Your task to perform on an android device: View the shopping cart on ebay. Add usb-b to the cart on ebay Image 0: 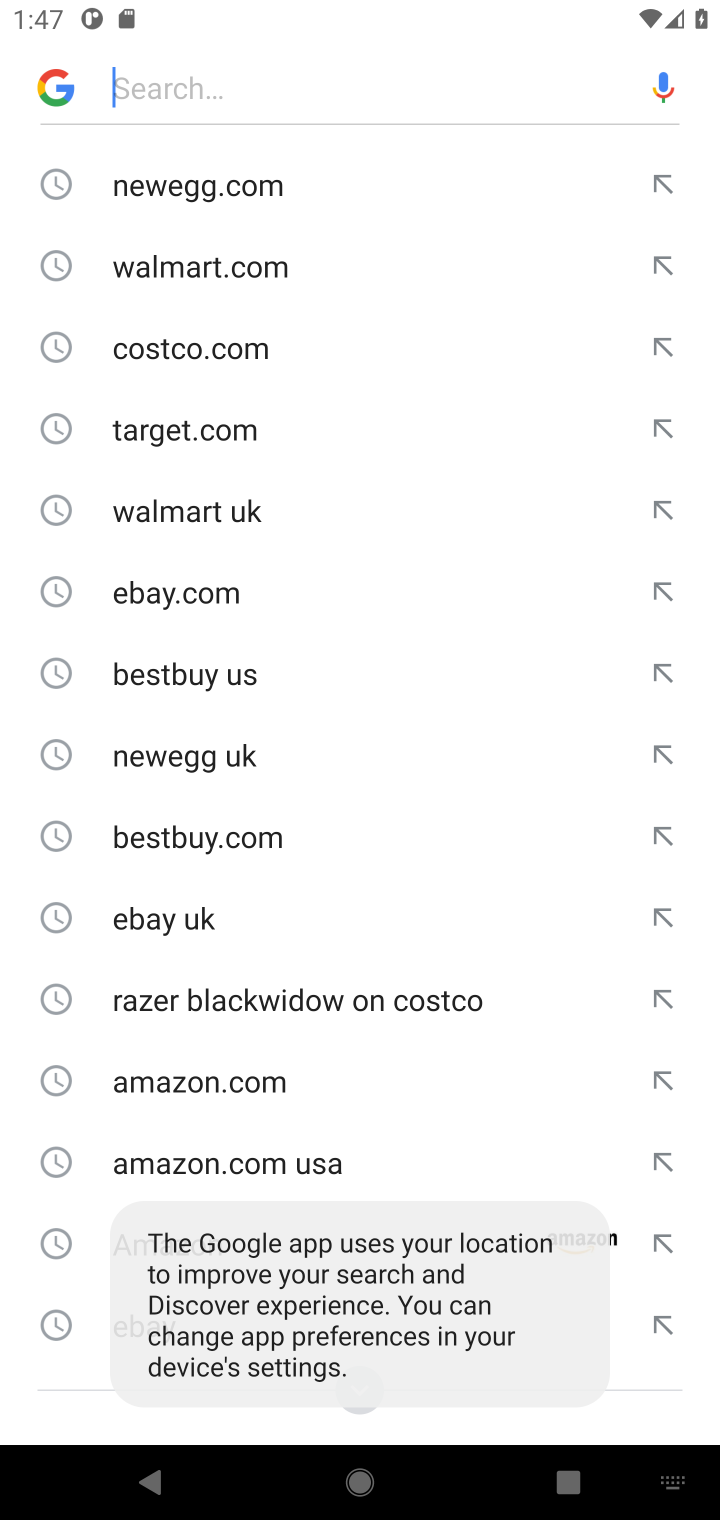
Step 0: press home button
Your task to perform on an android device: View the shopping cart on ebay. Add usb-b to the cart on ebay Image 1: 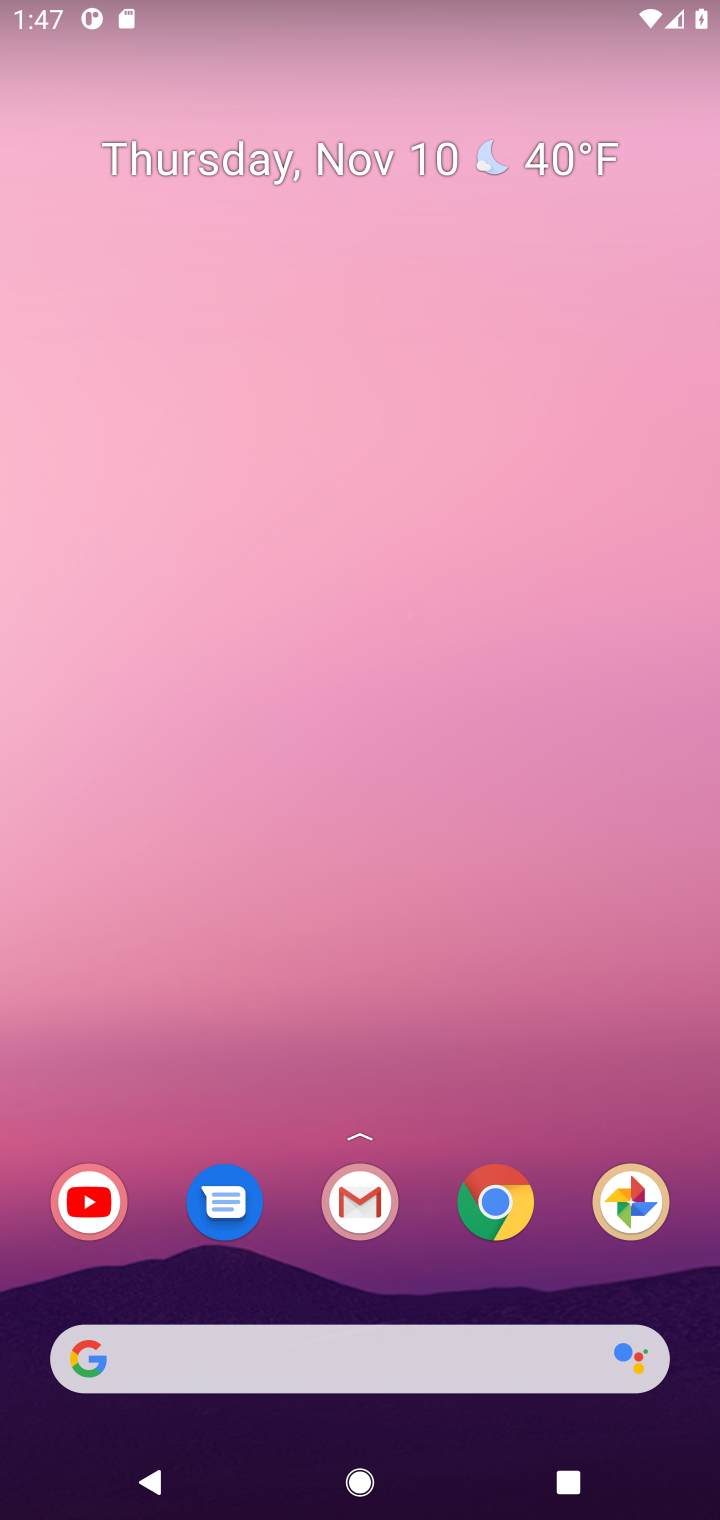
Step 1: click (492, 1211)
Your task to perform on an android device: View the shopping cart on ebay. Add usb-b to the cart on ebay Image 2: 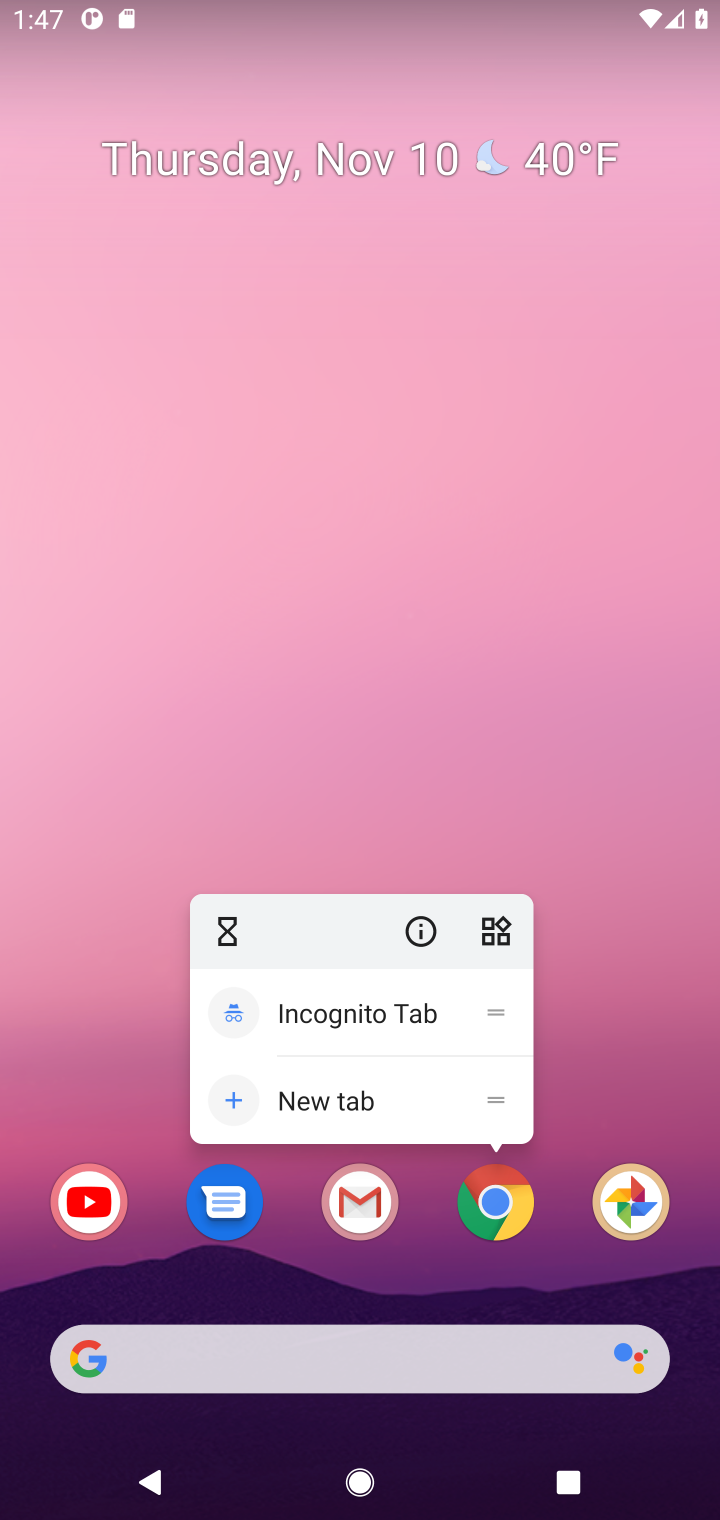
Step 2: click (496, 1204)
Your task to perform on an android device: View the shopping cart on ebay. Add usb-b to the cart on ebay Image 3: 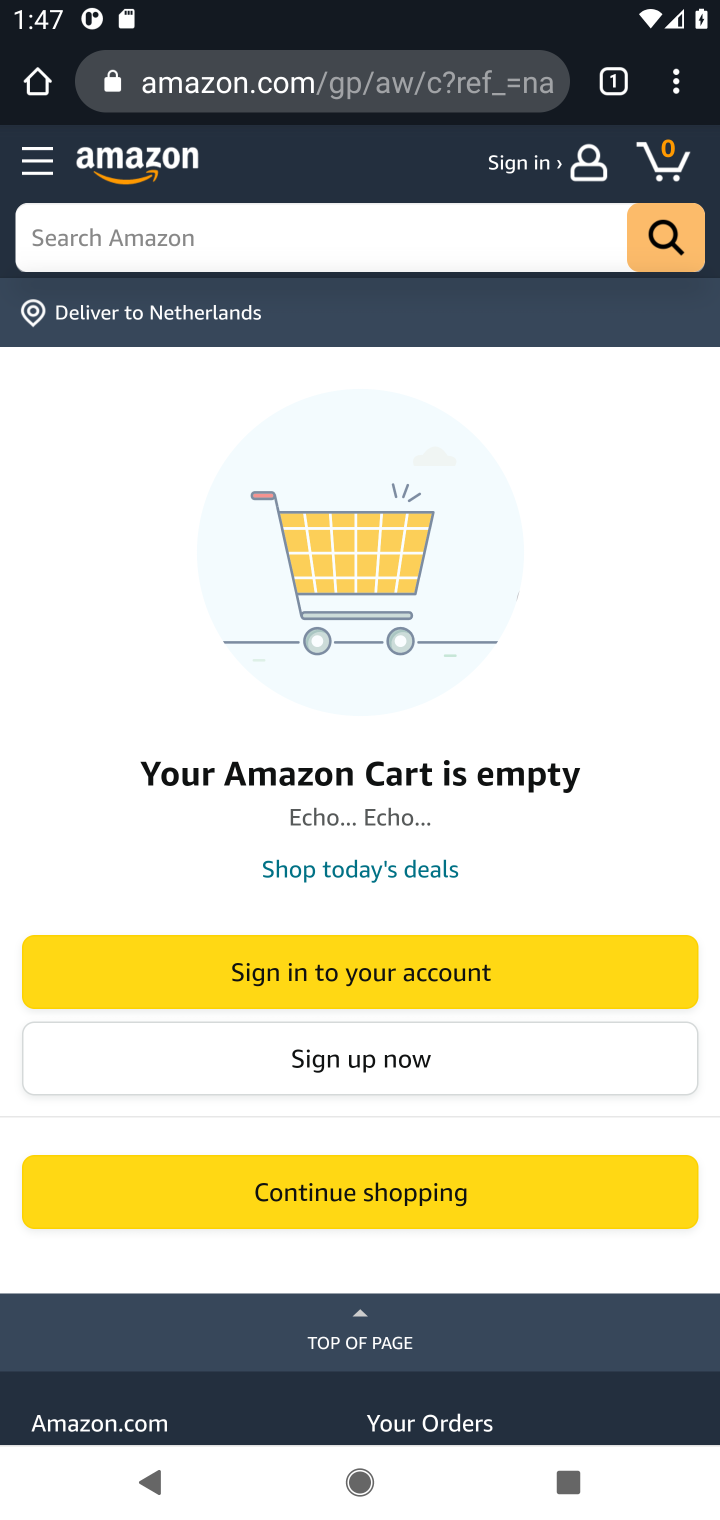
Step 3: click (334, 94)
Your task to perform on an android device: View the shopping cart on ebay. Add usb-b to the cart on ebay Image 4: 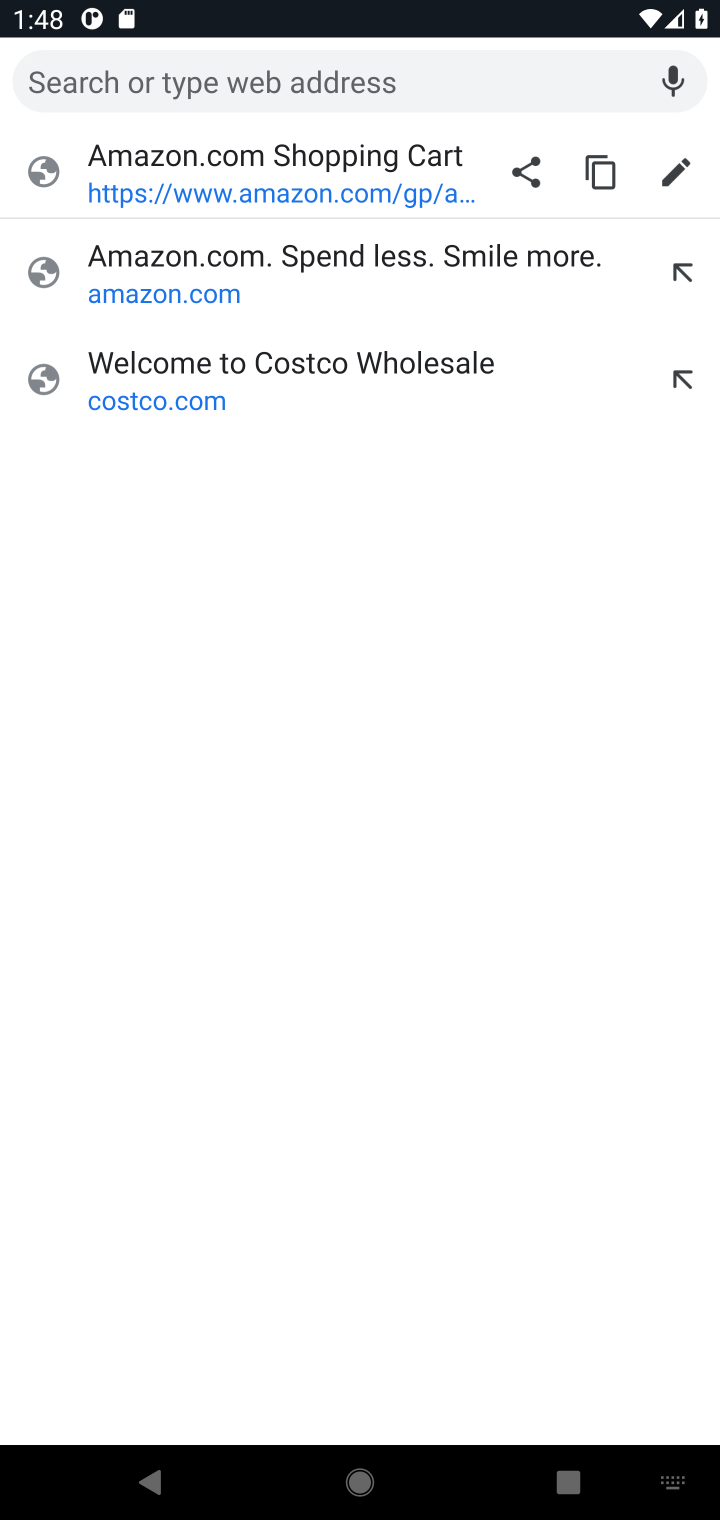
Step 4: type " ebay"
Your task to perform on an android device: View the shopping cart on ebay. Add usb-b to the cart on ebay Image 5: 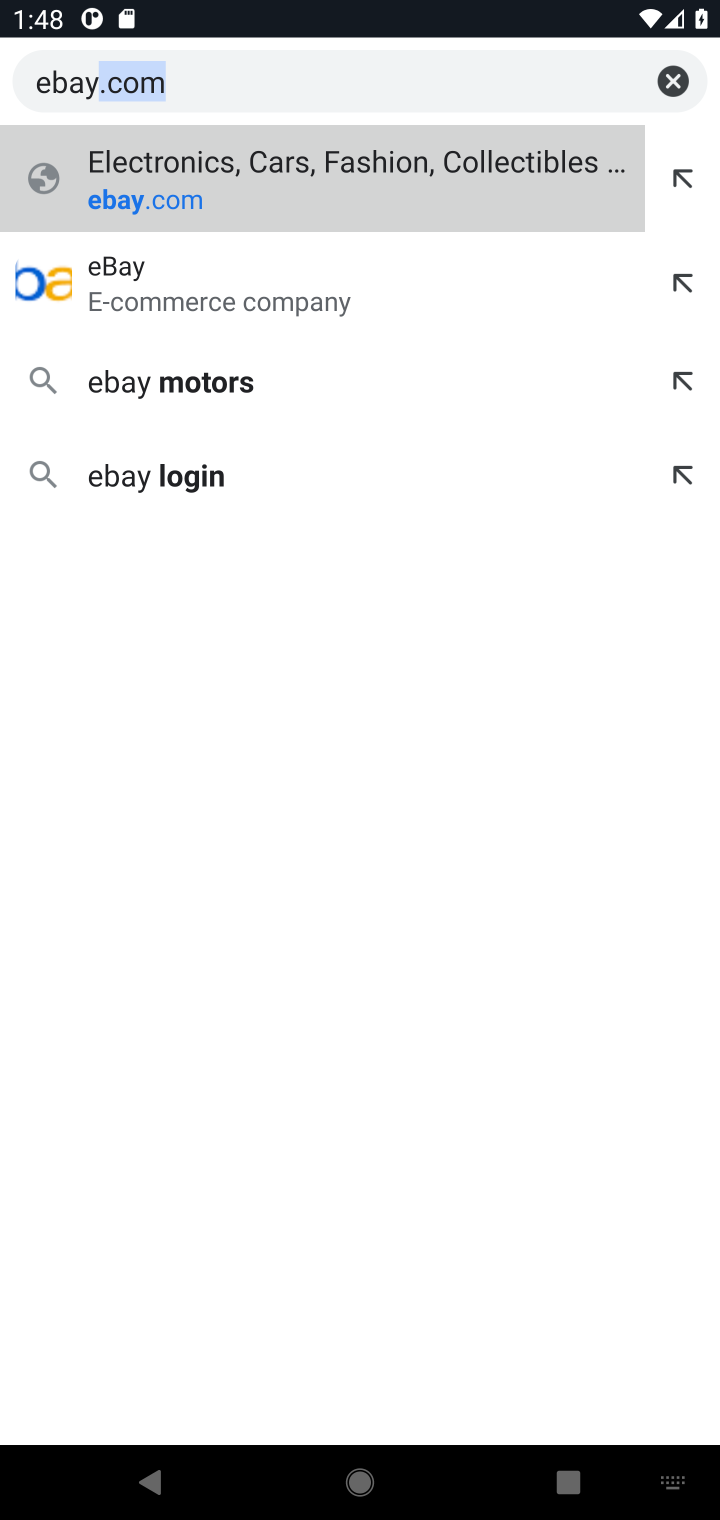
Step 5: press enter
Your task to perform on an android device: View the shopping cart on ebay. Add usb-b to the cart on ebay Image 6: 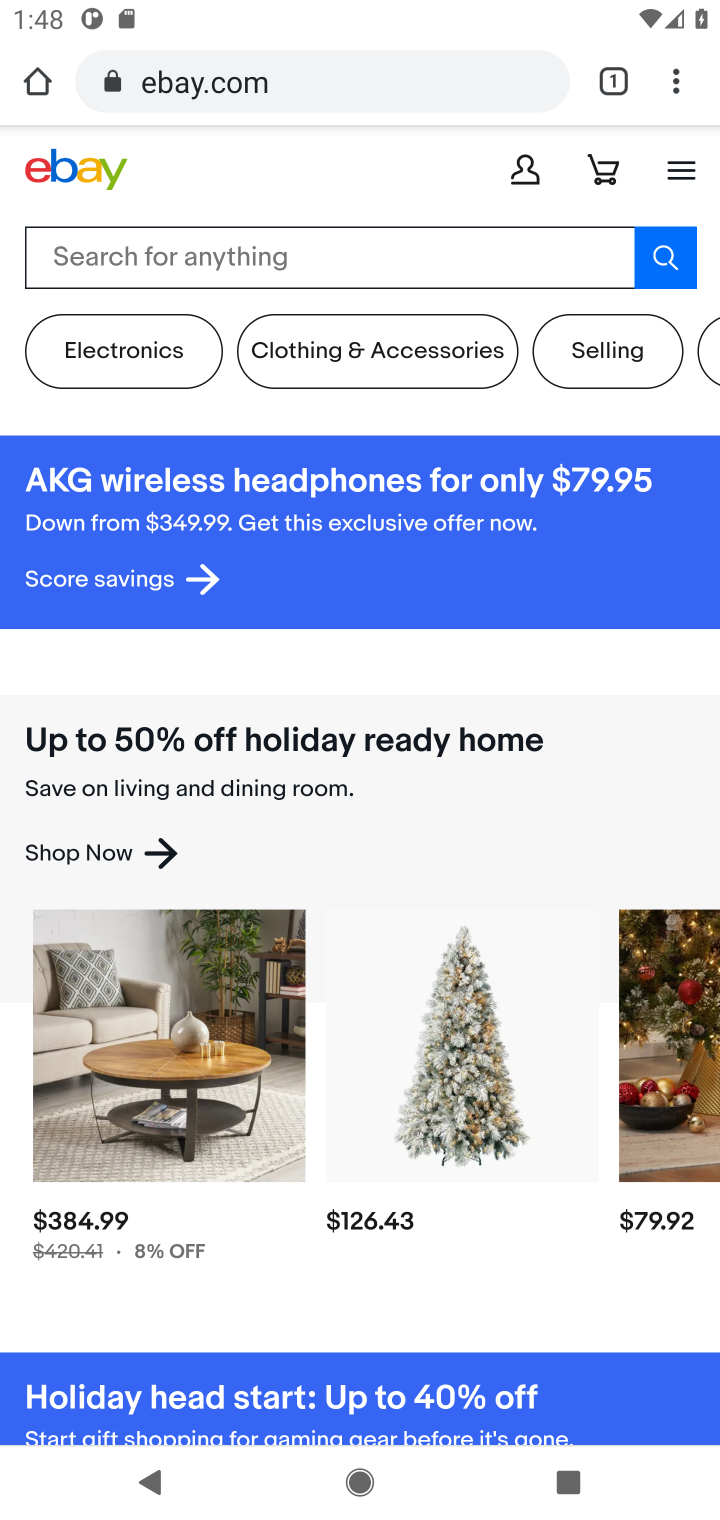
Step 6: click (254, 243)
Your task to perform on an android device: View the shopping cart on ebay. Add usb-b to the cart on ebay Image 7: 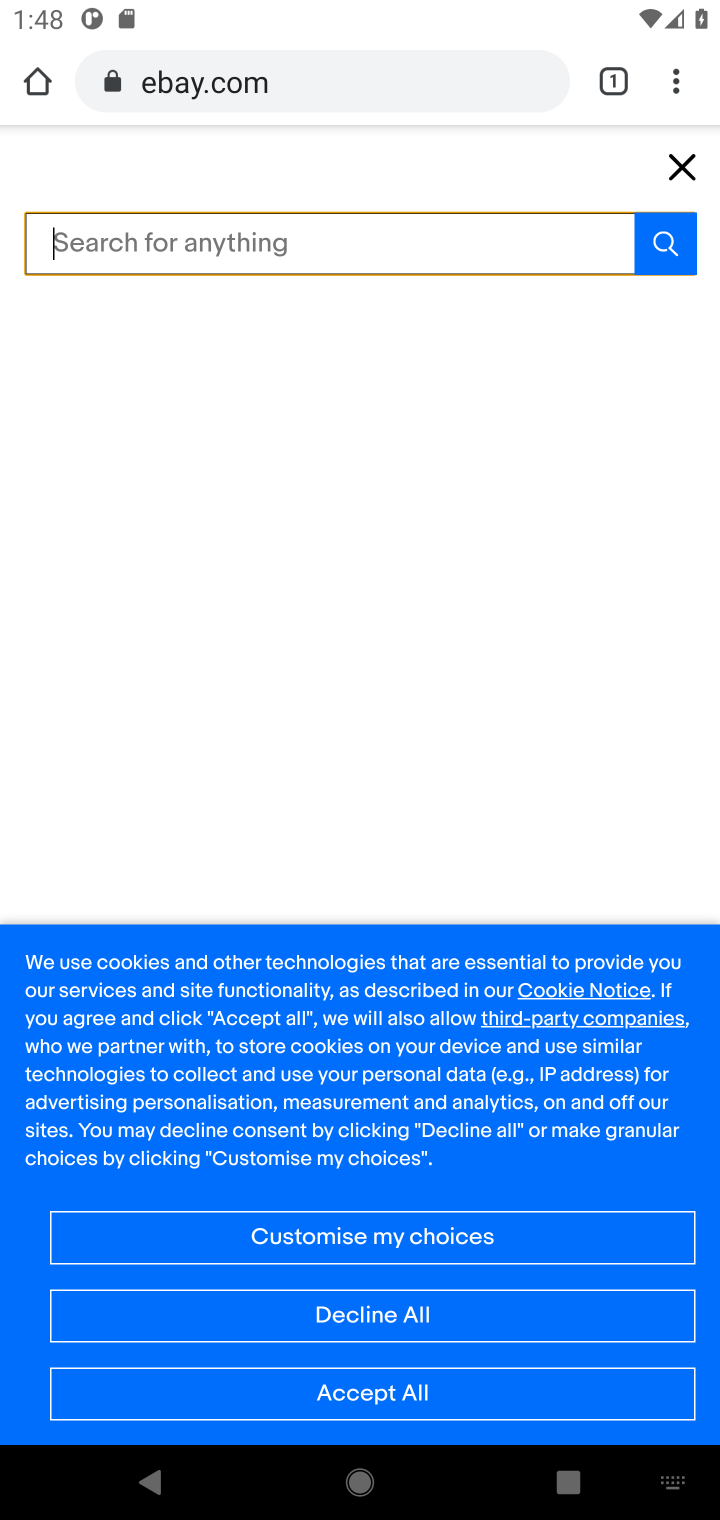
Step 7: type "usb-b "
Your task to perform on an android device: View the shopping cart on ebay. Add usb-b to the cart on ebay Image 8: 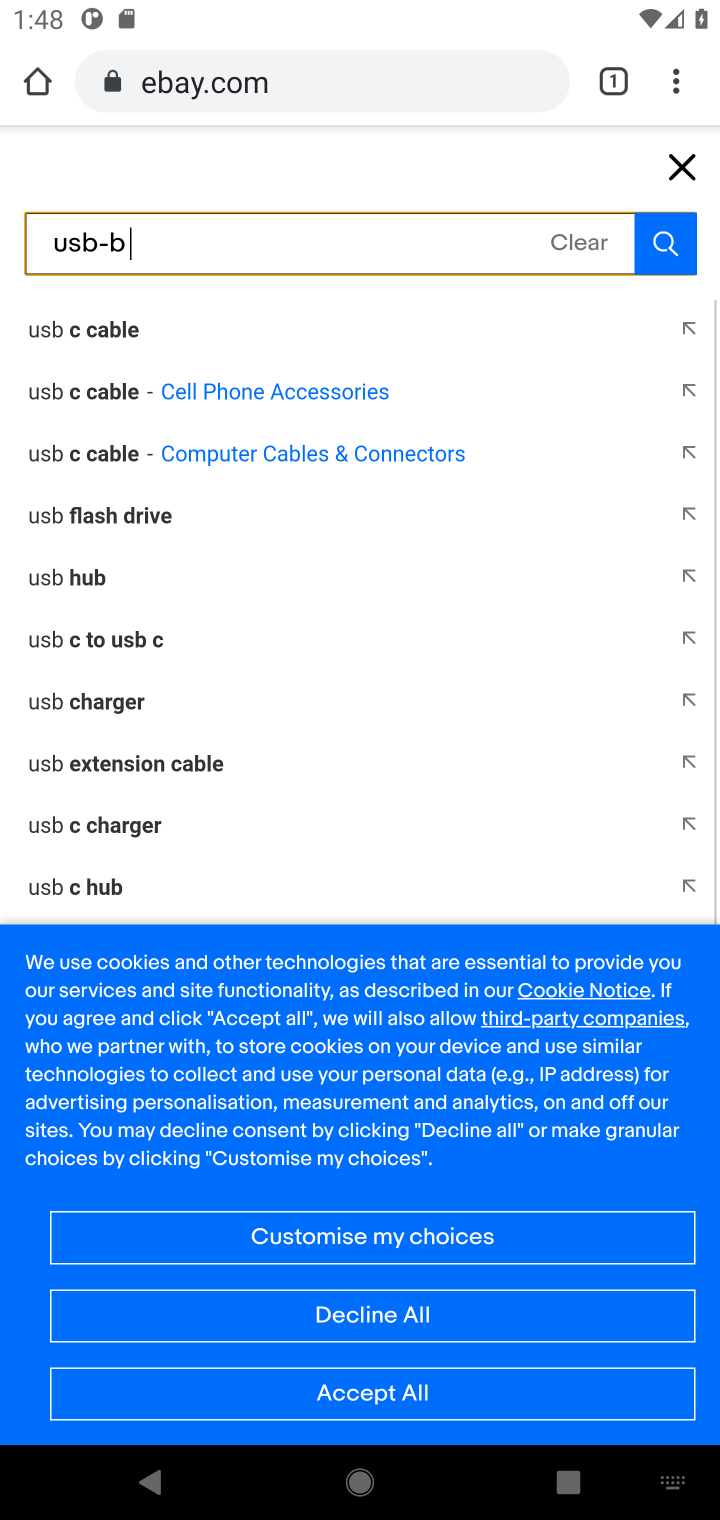
Step 8: press enter
Your task to perform on an android device: View the shopping cart on ebay. Add usb-b to the cart on ebay Image 9: 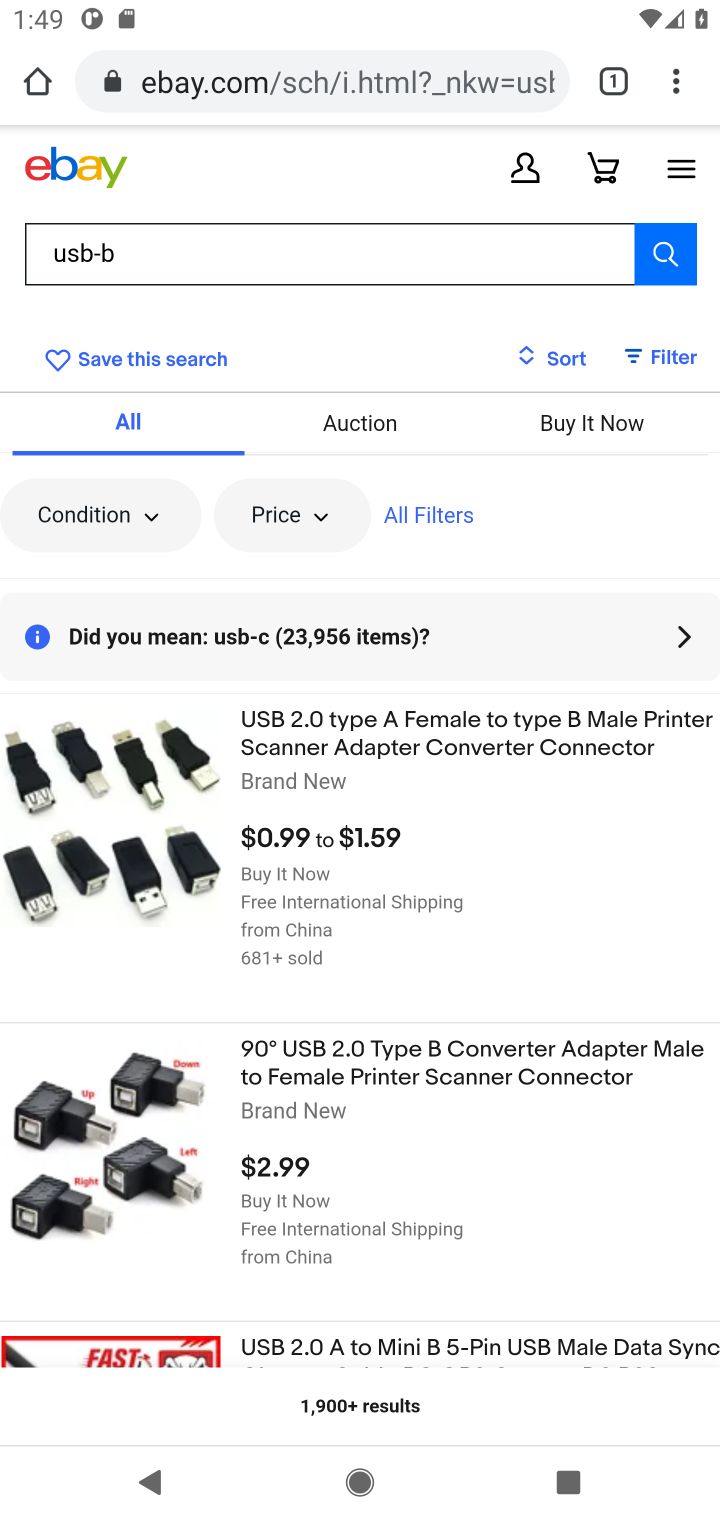
Step 9: click (453, 1071)
Your task to perform on an android device: View the shopping cart on ebay. Add usb-b to the cart on ebay Image 10: 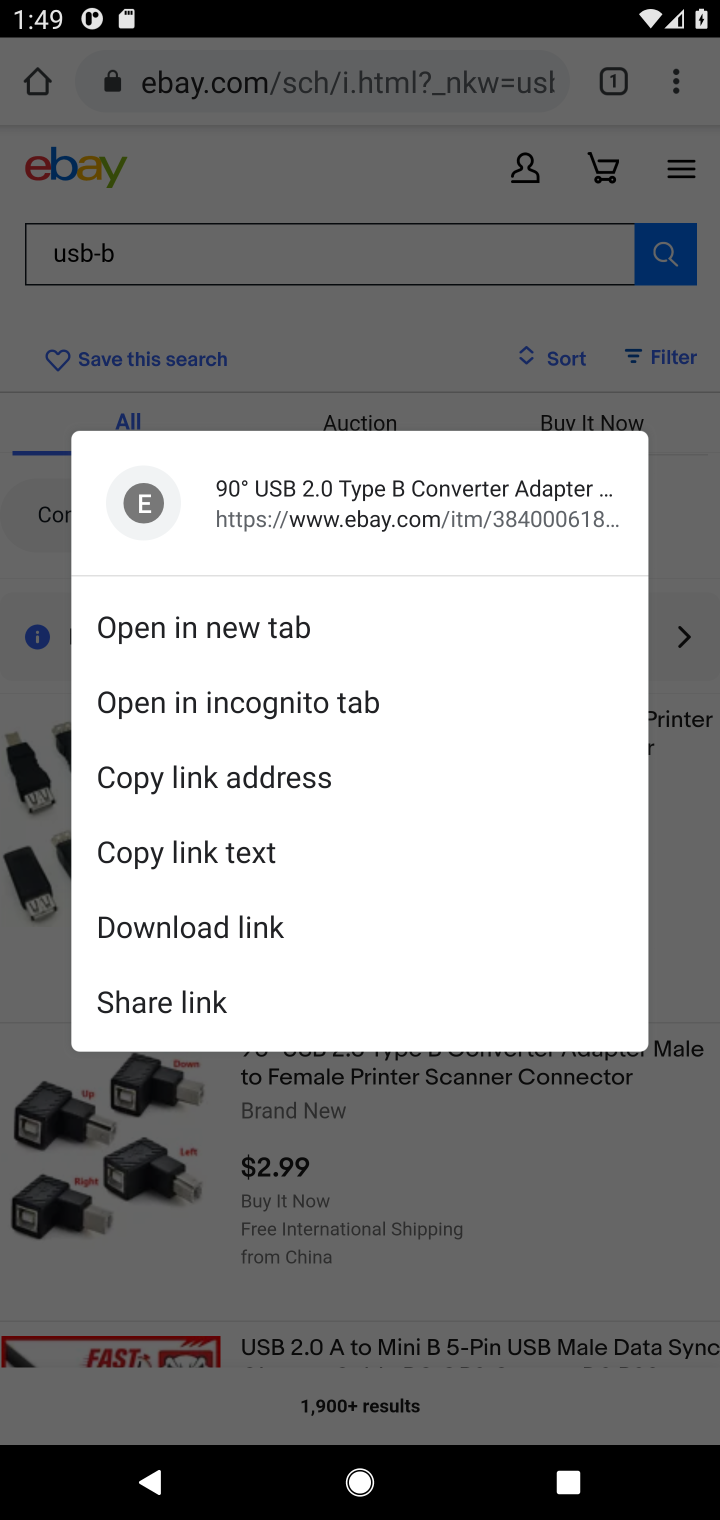
Step 10: click (453, 1071)
Your task to perform on an android device: View the shopping cart on ebay. Add usb-b to the cart on ebay Image 11: 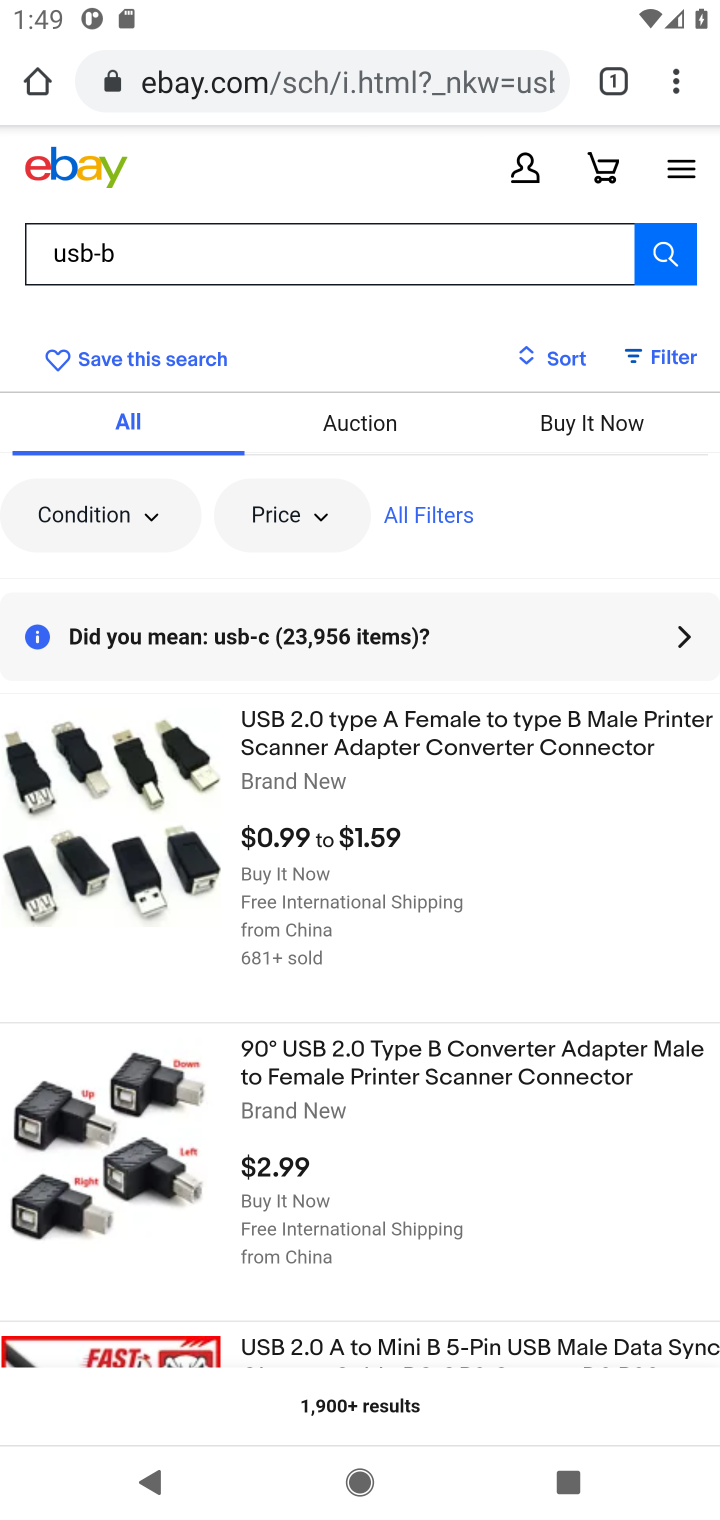
Step 11: click (388, 1050)
Your task to perform on an android device: View the shopping cart on ebay. Add usb-b to the cart on ebay Image 12: 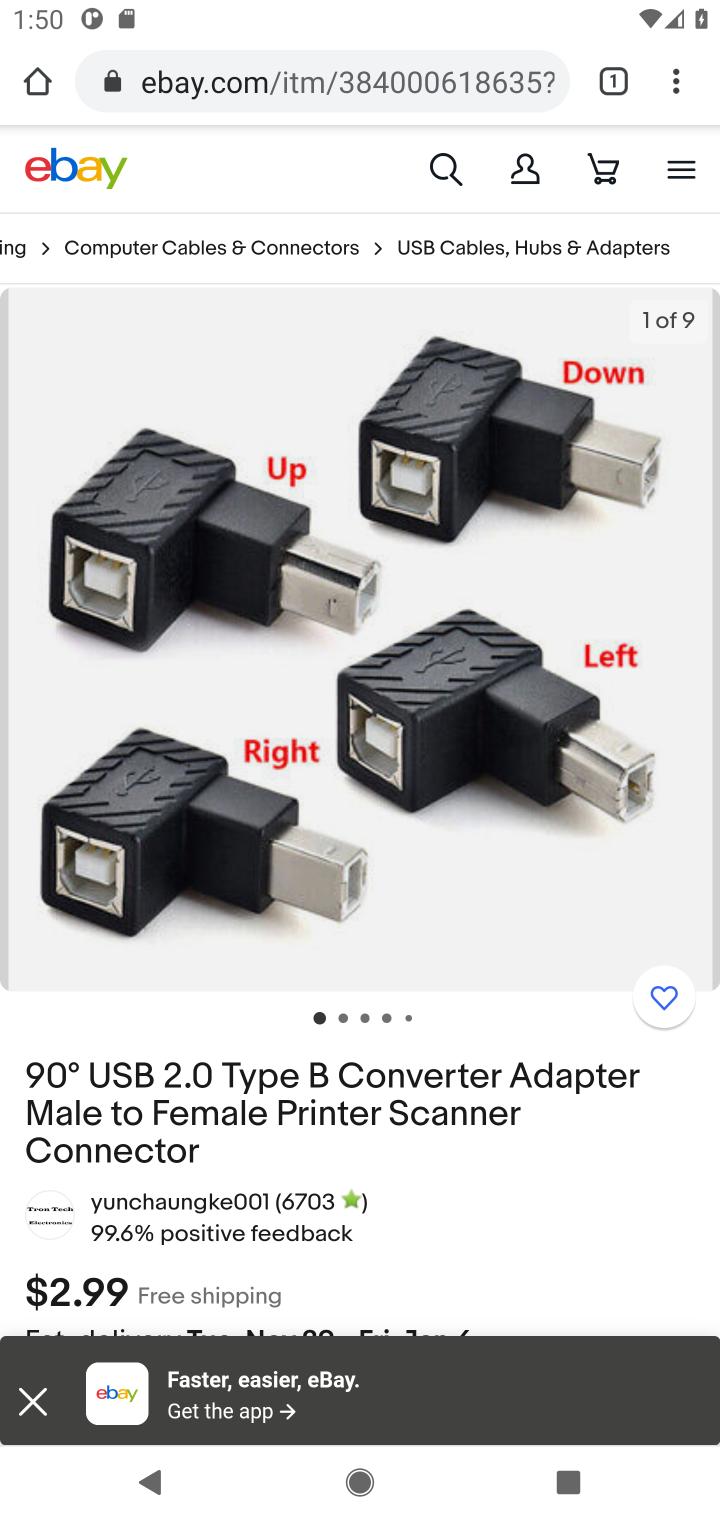
Step 12: drag from (369, 1155) to (688, 262)
Your task to perform on an android device: View the shopping cart on ebay. Add usb-b to the cart on ebay Image 13: 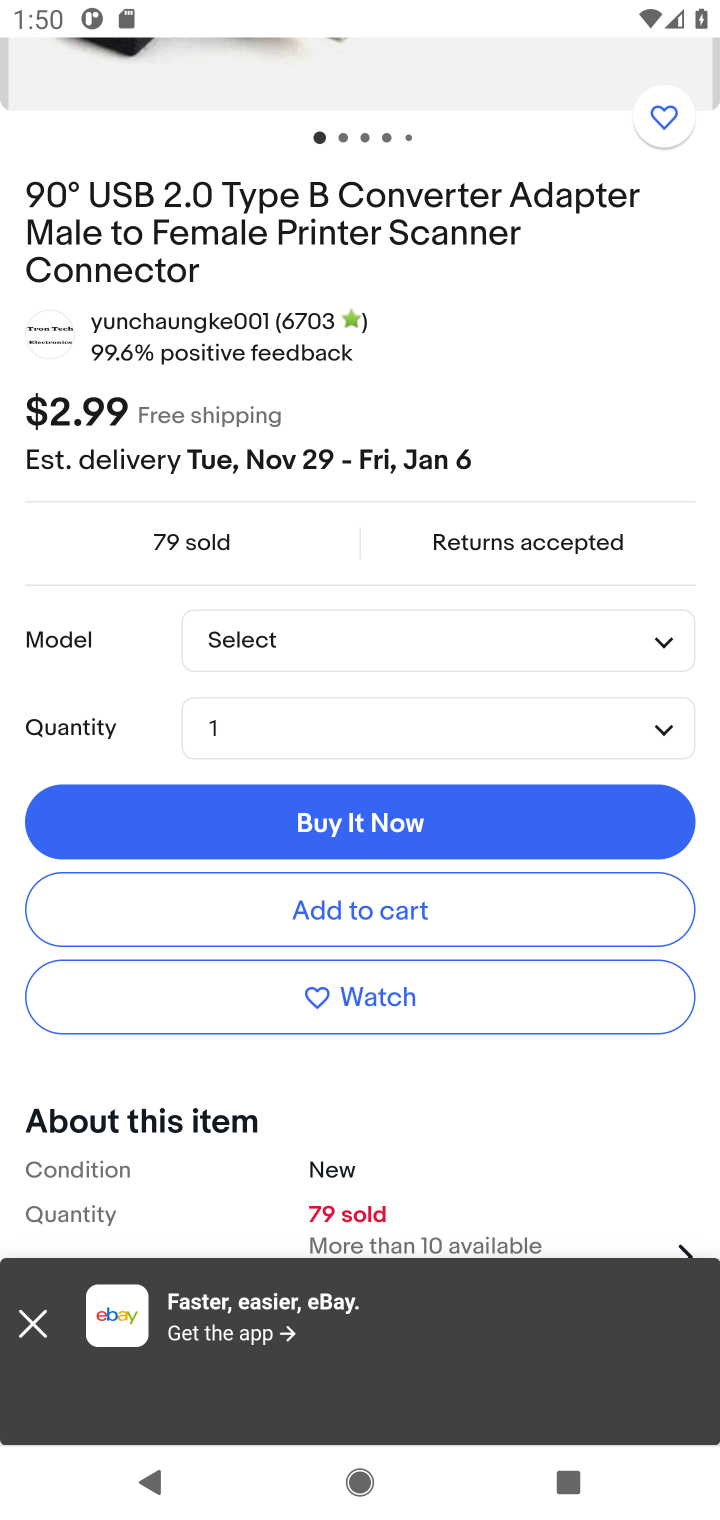
Step 13: click (389, 900)
Your task to perform on an android device: View the shopping cart on ebay. Add usb-b to the cart on ebay Image 14: 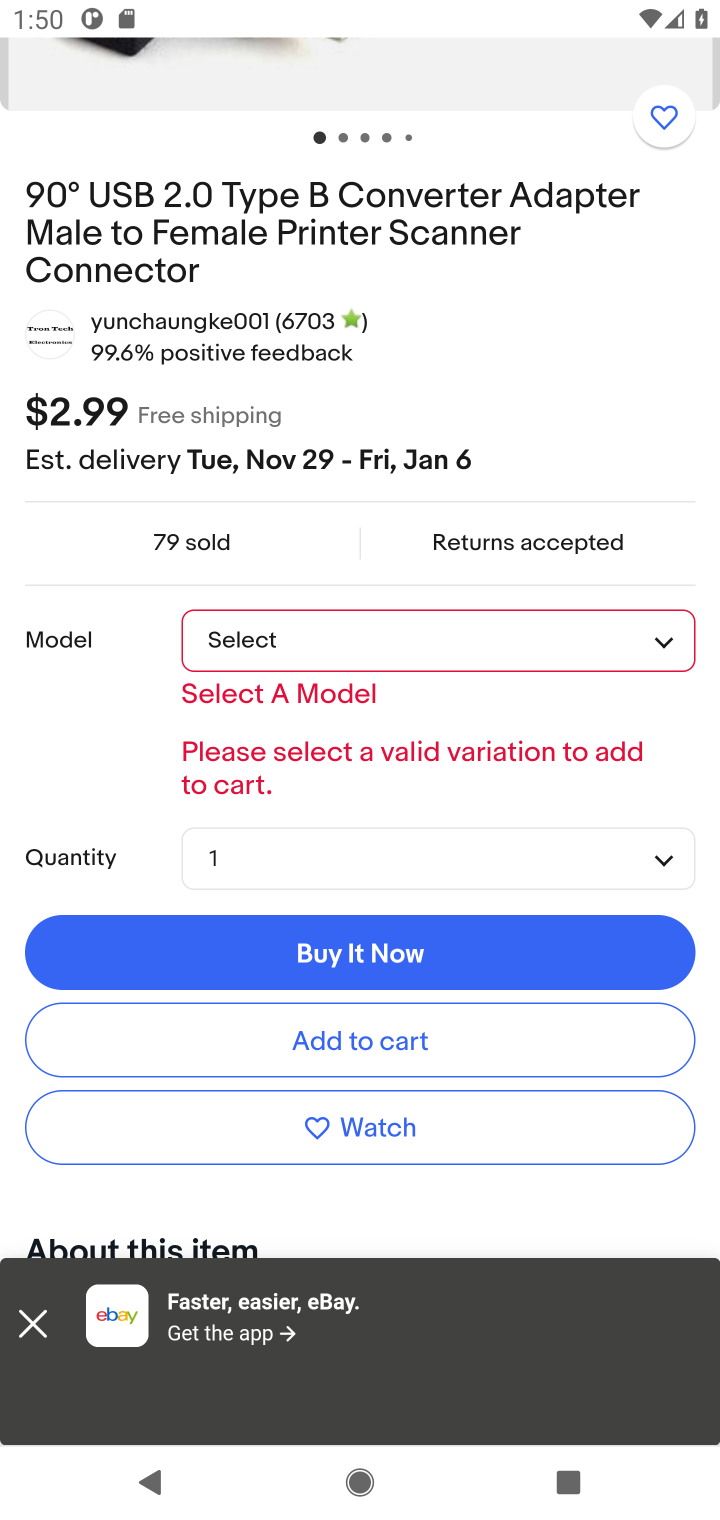
Step 14: click (684, 616)
Your task to perform on an android device: View the shopping cart on ebay. Add usb-b to the cart on ebay Image 15: 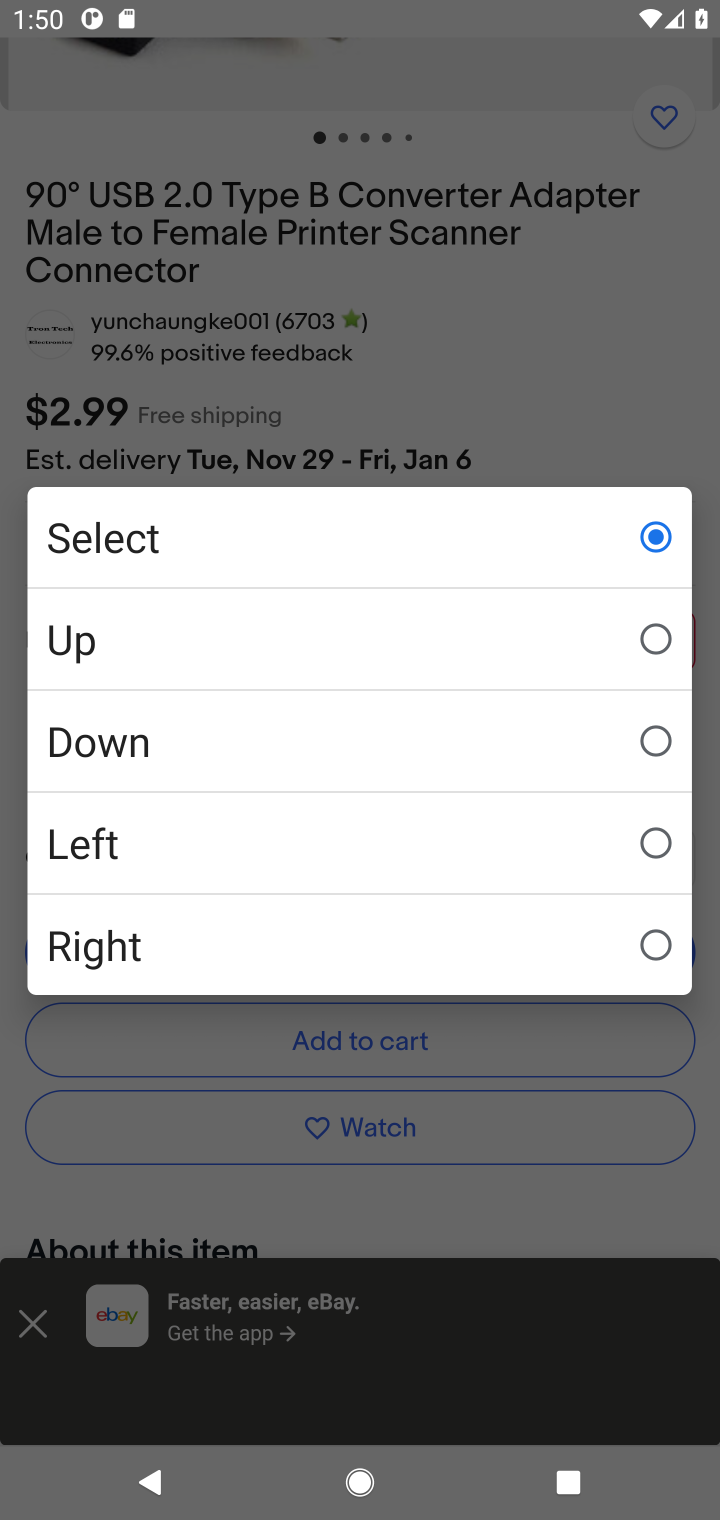
Step 15: click (671, 641)
Your task to perform on an android device: View the shopping cart on ebay. Add usb-b to the cart on ebay Image 16: 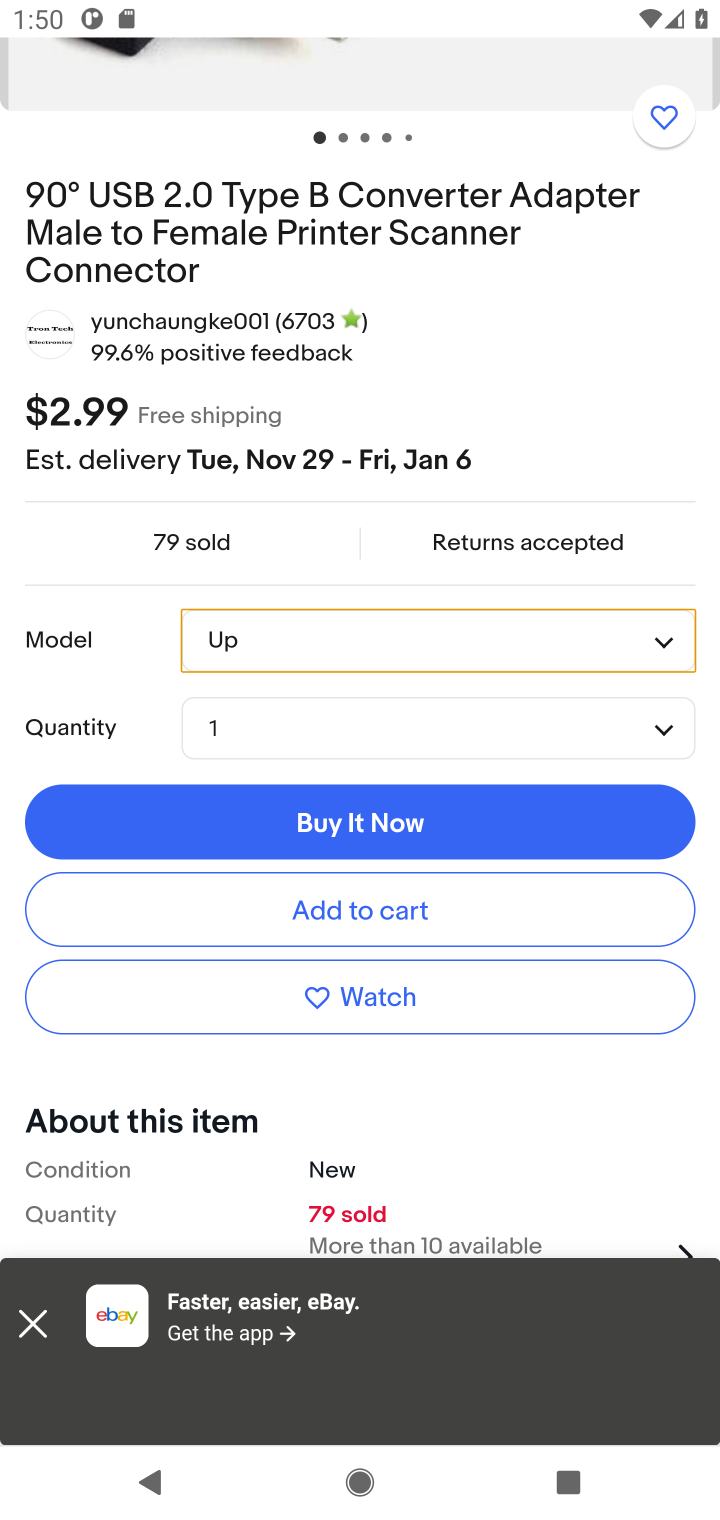
Step 16: click (370, 907)
Your task to perform on an android device: View the shopping cart on ebay. Add usb-b to the cart on ebay Image 17: 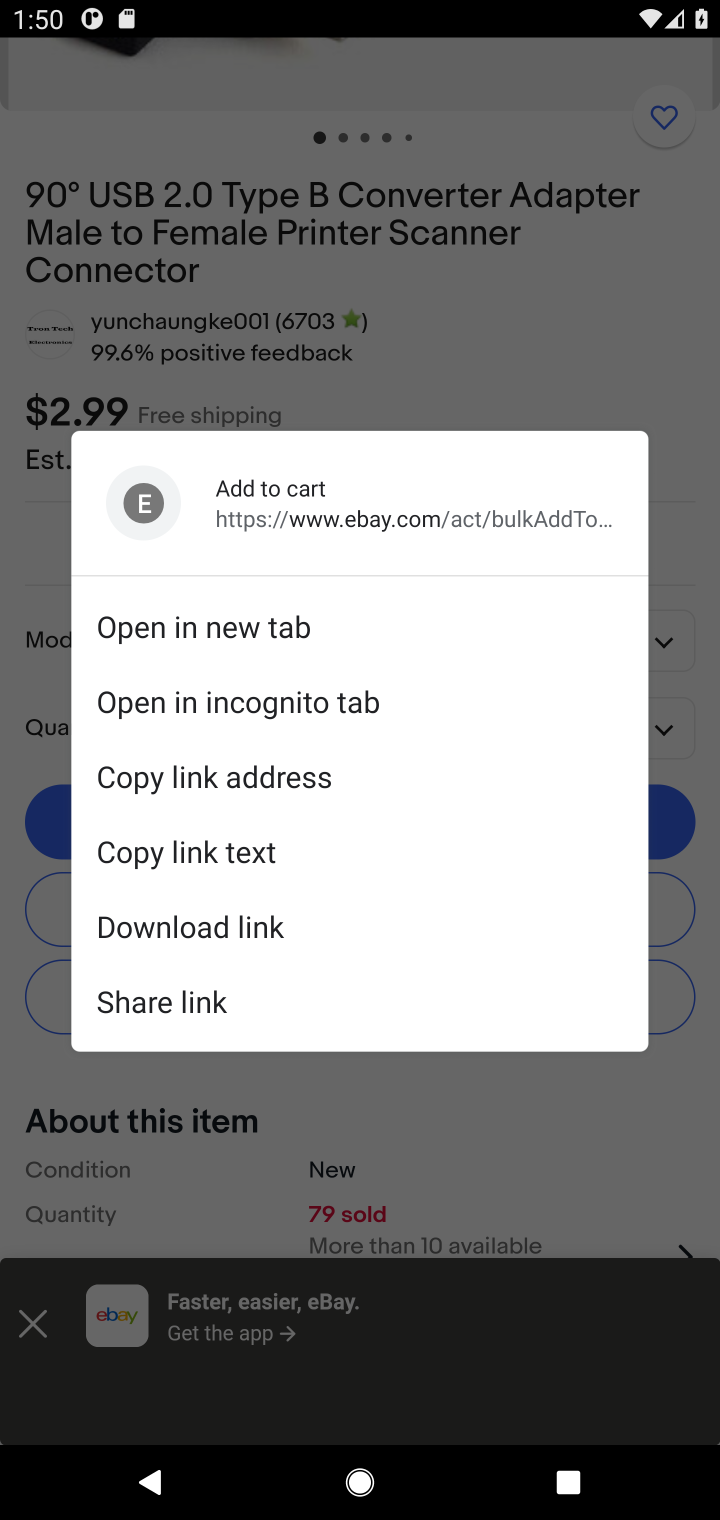
Step 17: click (673, 892)
Your task to perform on an android device: View the shopping cart on ebay. Add usb-b to the cart on ebay Image 18: 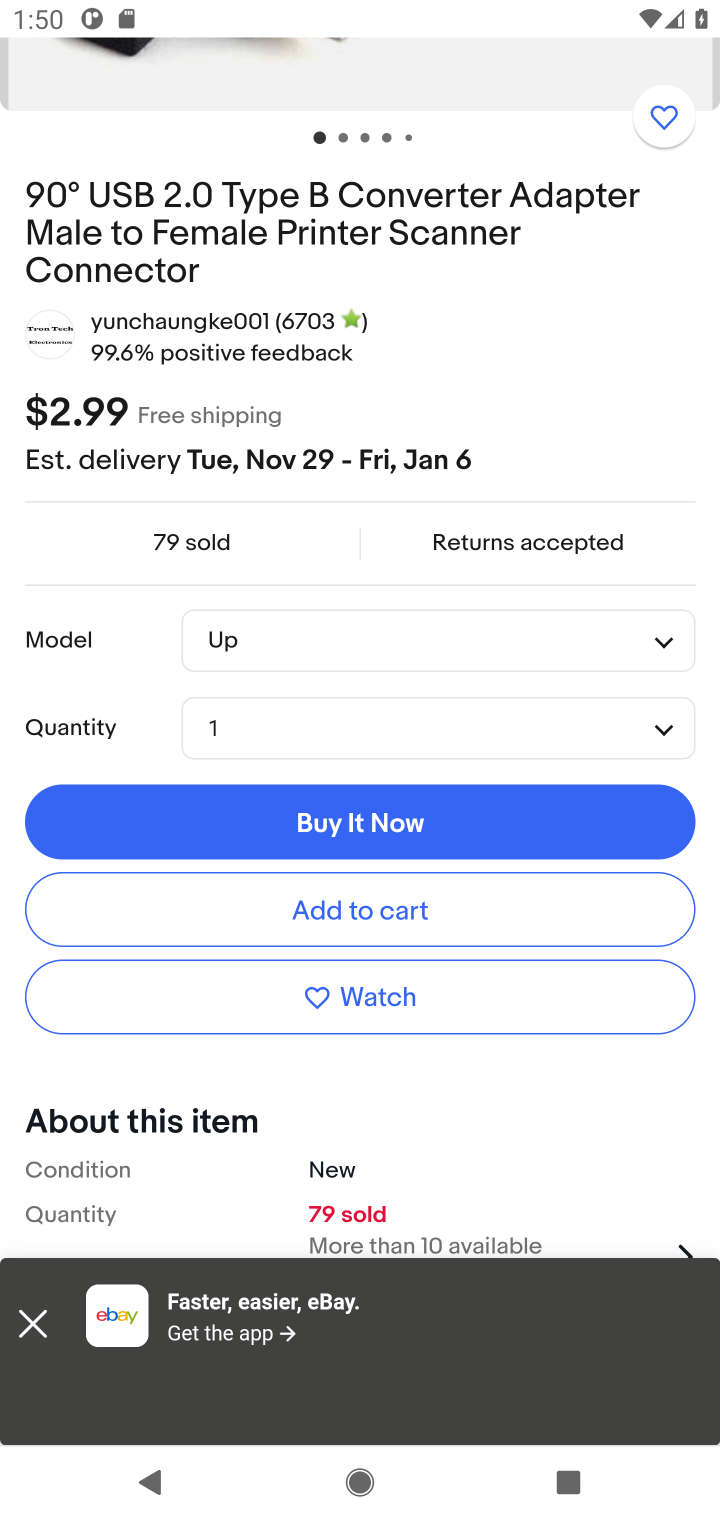
Step 18: click (353, 911)
Your task to perform on an android device: View the shopping cart on ebay. Add usb-b to the cart on ebay Image 19: 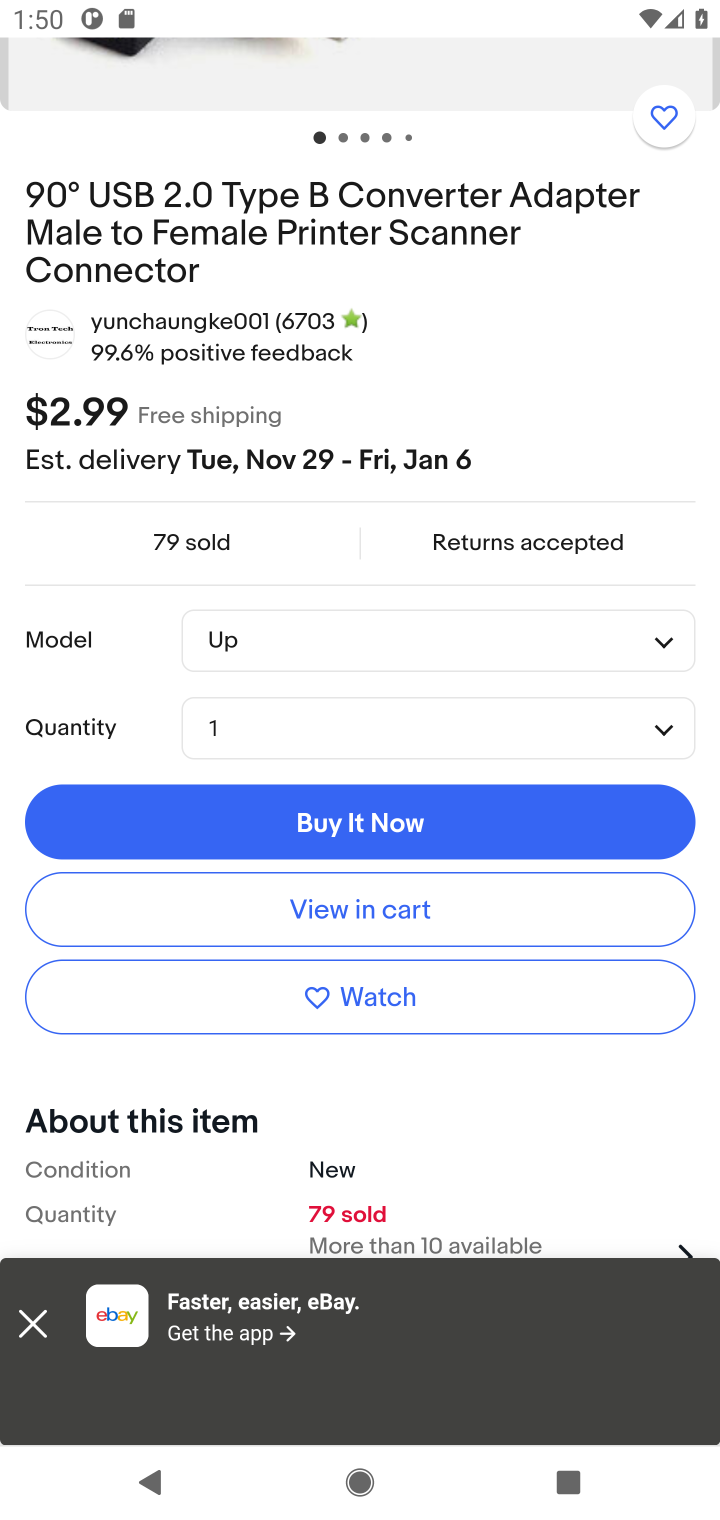
Step 19: click (353, 911)
Your task to perform on an android device: View the shopping cart on ebay. Add usb-b to the cart on ebay Image 20: 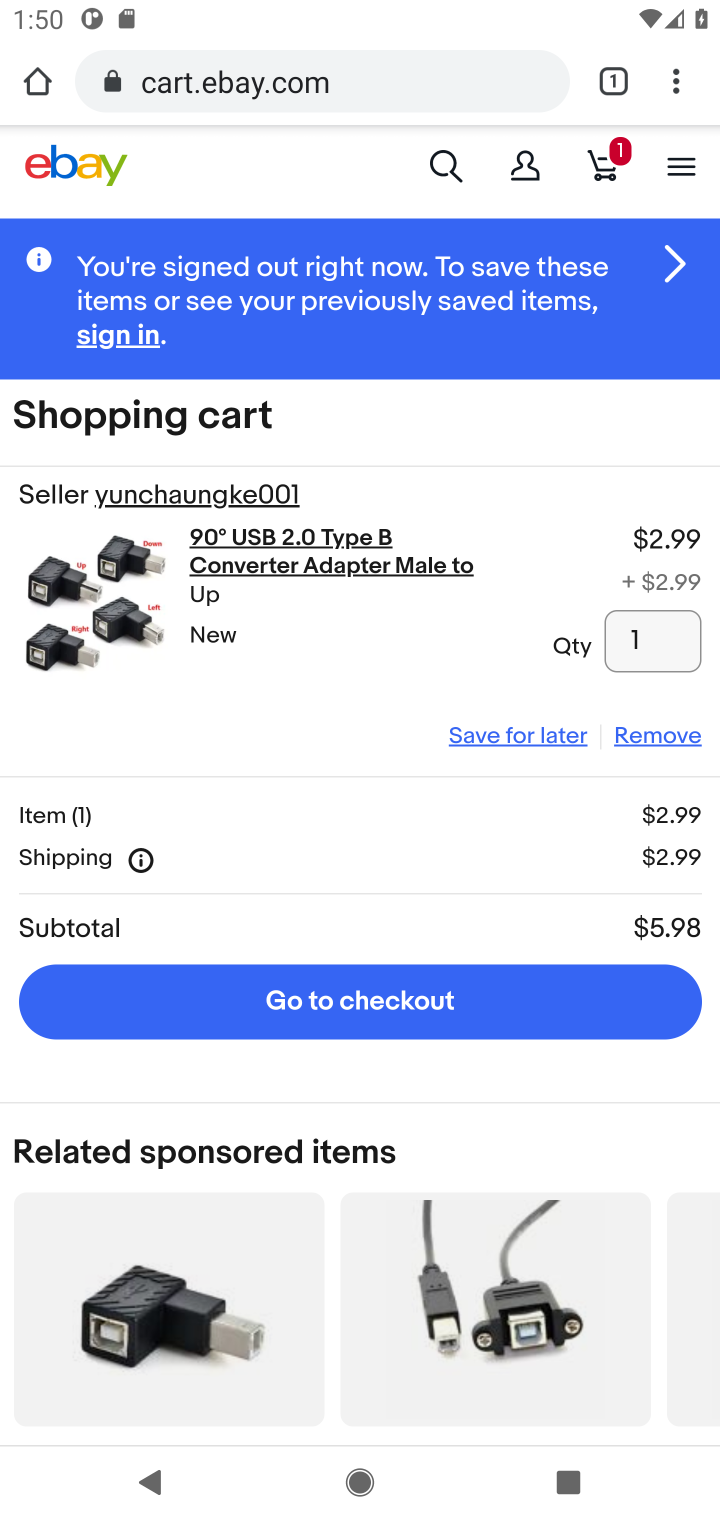
Step 20: task complete